Your task to perform on an android device: empty trash in google photos Image 0: 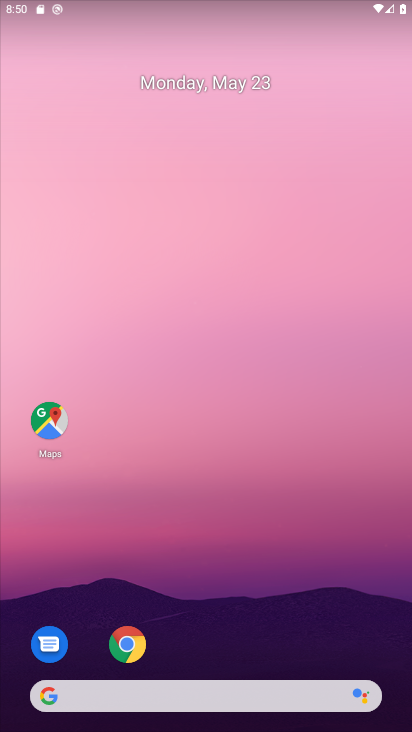
Step 0: drag from (373, 645) to (380, 67)
Your task to perform on an android device: empty trash in google photos Image 1: 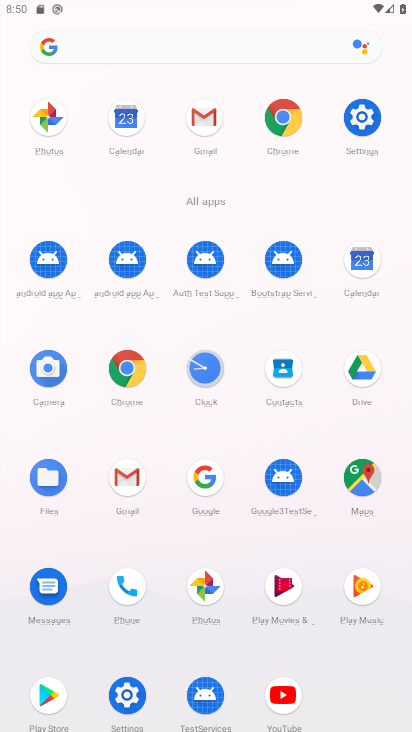
Step 1: click (204, 589)
Your task to perform on an android device: empty trash in google photos Image 2: 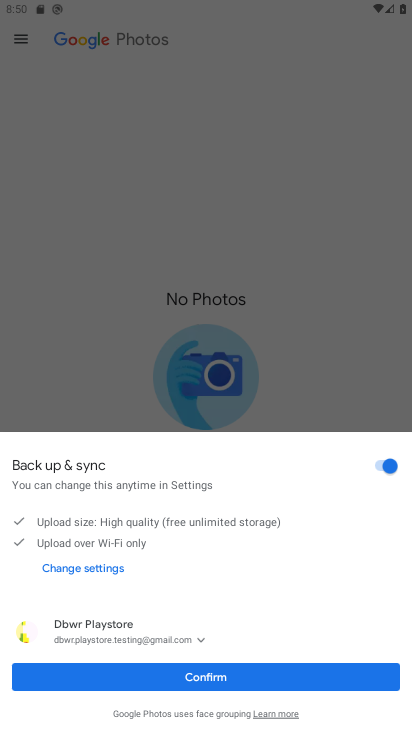
Step 2: click (241, 681)
Your task to perform on an android device: empty trash in google photos Image 3: 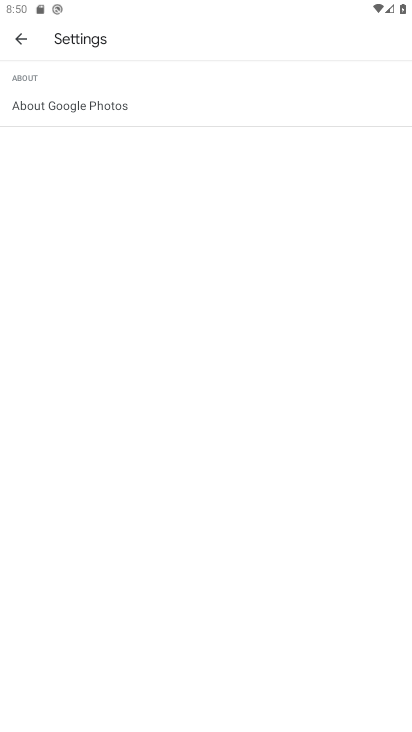
Step 3: click (19, 46)
Your task to perform on an android device: empty trash in google photos Image 4: 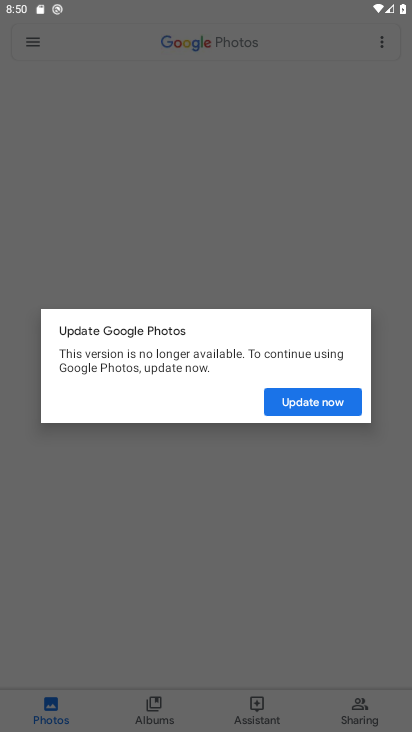
Step 4: click (312, 408)
Your task to perform on an android device: empty trash in google photos Image 5: 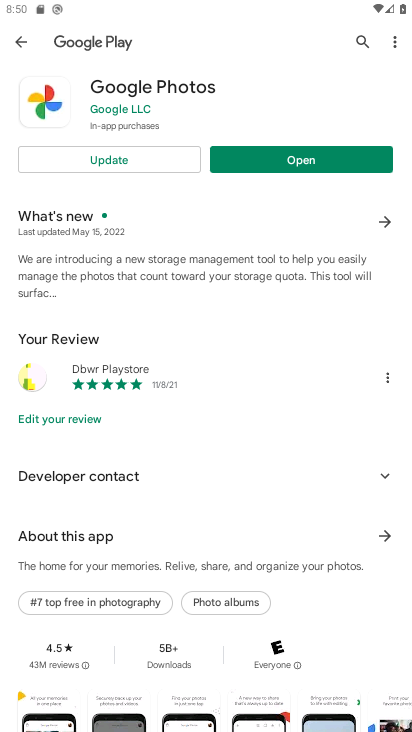
Step 5: click (99, 159)
Your task to perform on an android device: empty trash in google photos Image 6: 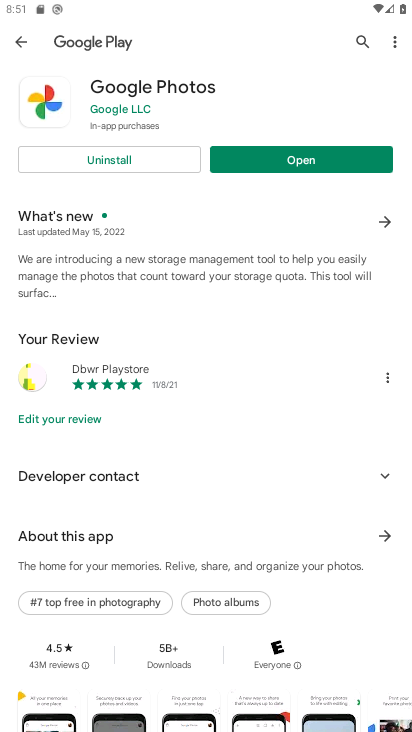
Step 6: click (309, 159)
Your task to perform on an android device: empty trash in google photos Image 7: 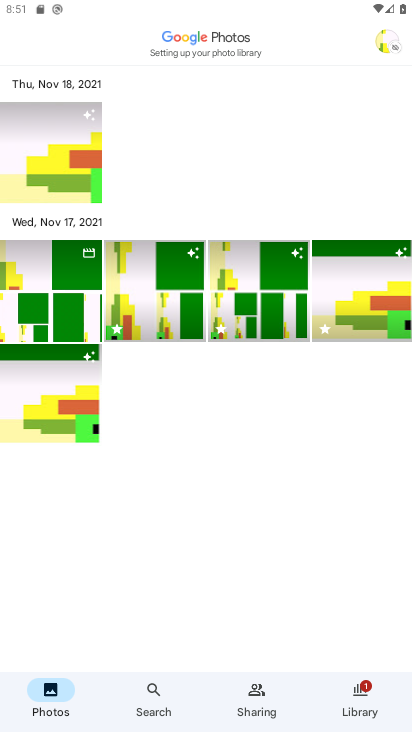
Step 7: task complete